Your task to perform on an android device: turn off airplane mode Image 0: 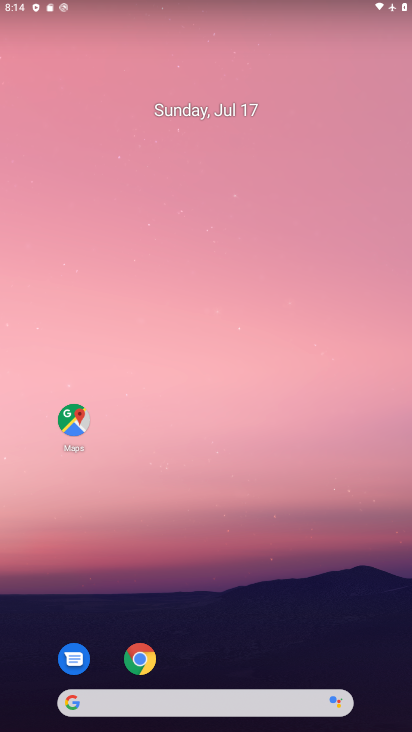
Step 0: drag from (197, 696) to (205, 32)
Your task to perform on an android device: turn off airplane mode Image 1: 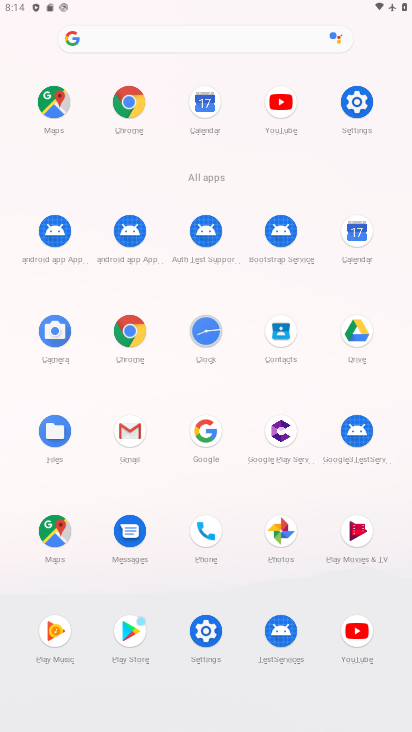
Step 1: click (357, 101)
Your task to perform on an android device: turn off airplane mode Image 2: 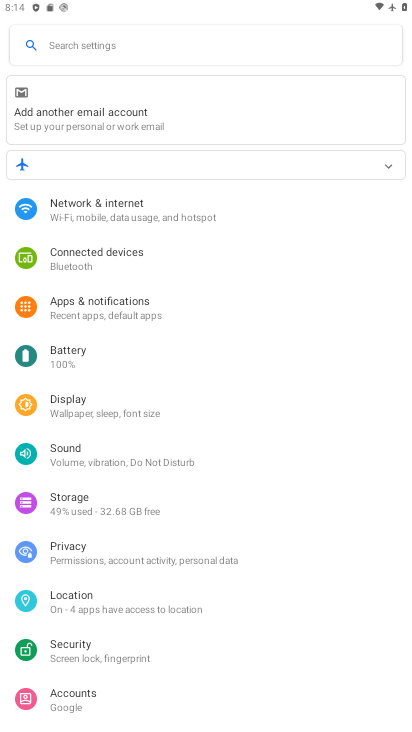
Step 2: click (100, 213)
Your task to perform on an android device: turn off airplane mode Image 3: 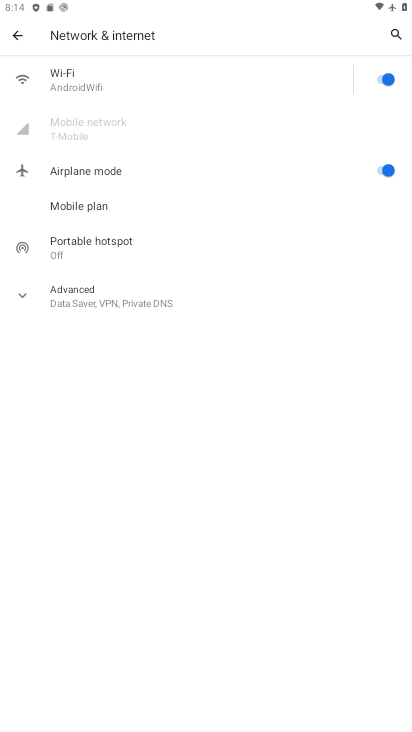
Step 3: click (388, 168)
Your task to perform on an android device: turn off airplane mode Image 4: 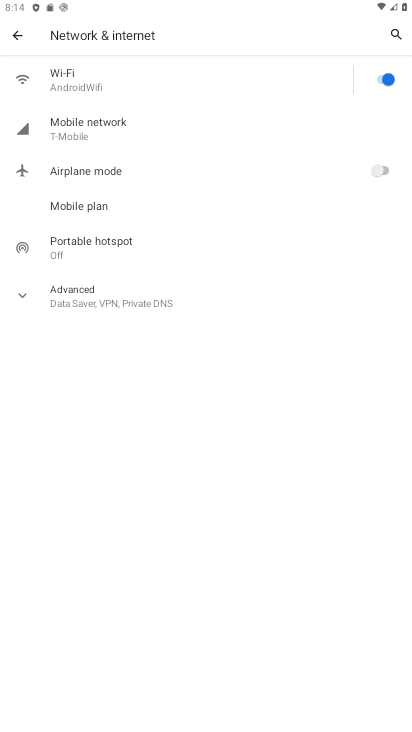
Step 4: task complete